Your task to perform on an android device: turn off sleep mode Image 0: 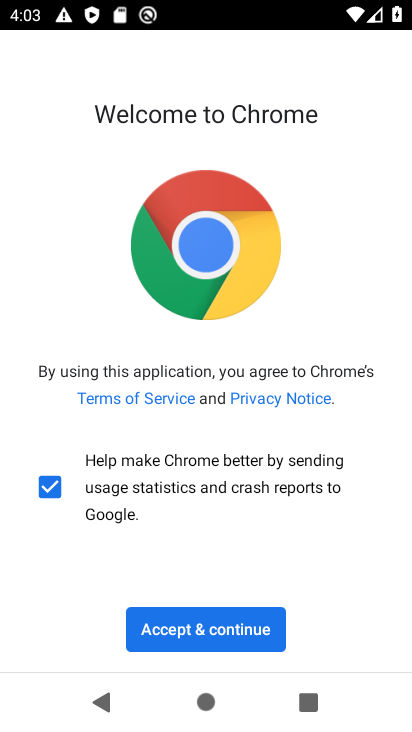
Step 0: task impossible